Your task to perform on an android device: Show me productivity apps on the Play Store Image 0: 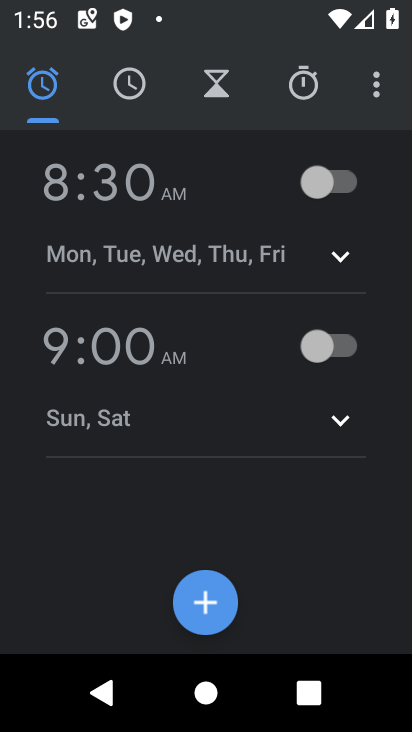
Step 0: press home button
Your task to perform on an android device: Show me productivity apps on the Play Store Image 1: 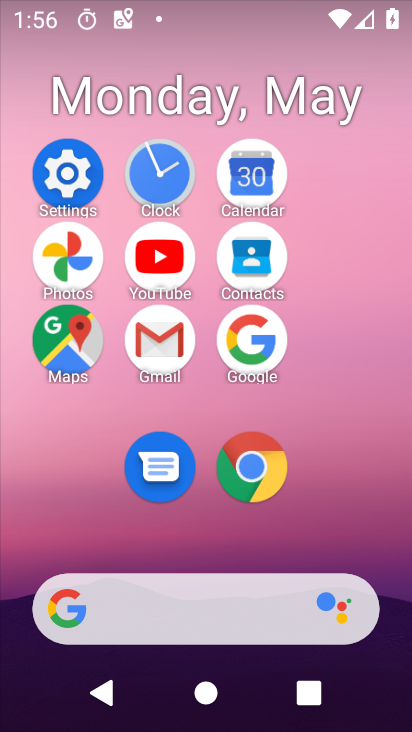
Step 1: drag from (311, 547) to (362, 160)
Your task to perform on an android device: Show me productivity apps on the Play Store Image 2: 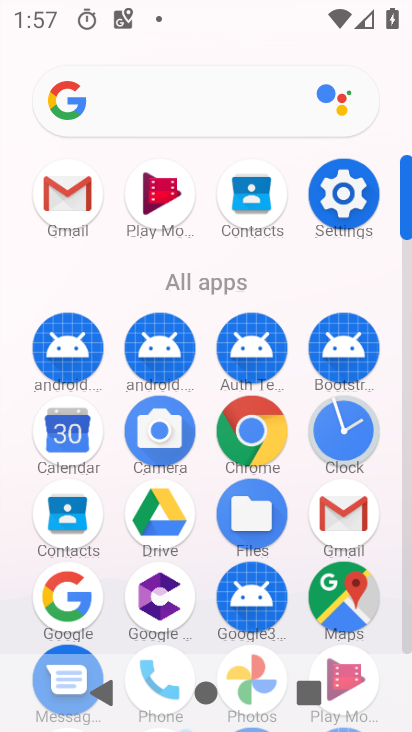
Step 2: drag from (154, 577) to (170, 216)
Your task to perform on an android device: Show me productivity apps on the Play Store Image 3: 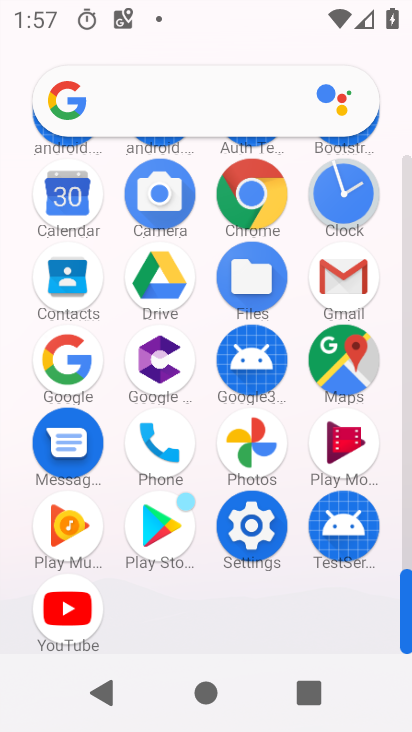
Step 3: click (160, 528)
Your task to perform on an android device: Show me productivity apps on the Play Store Image 4: 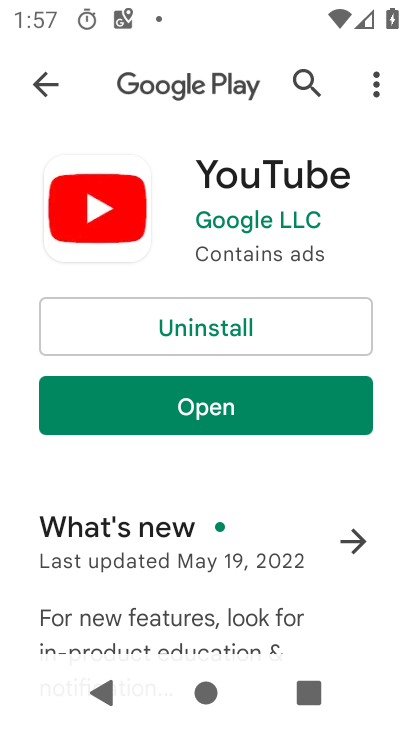
Step 4: click (33, 88)
Your task to perform on an android device: Show me productivity apps on the Play Store Image 5: 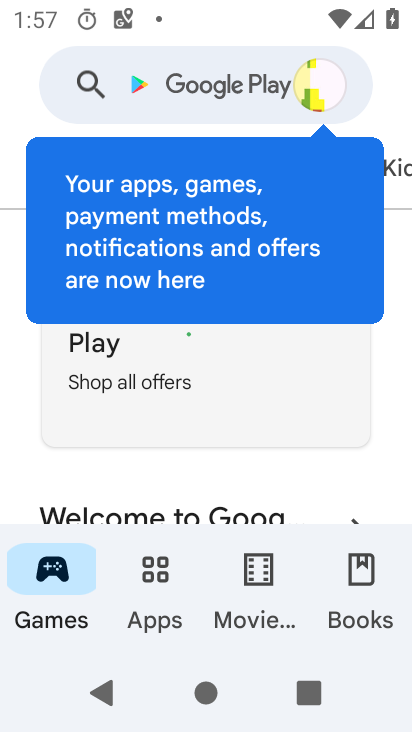
Step 5: click (177, 600)
Your task to perform on an android device: Show me productivity apps on the Play Store Image 6: 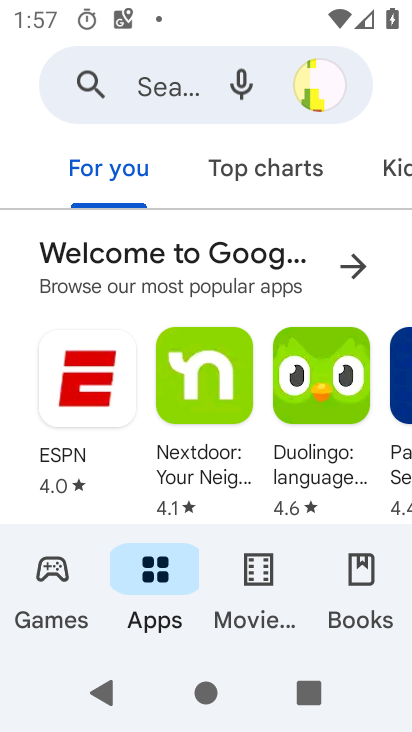
Step 6: drag from (384, 172) to (147, 166)
Your task to perform on an android device: Show me productivity apps on the Play Store Image 7: 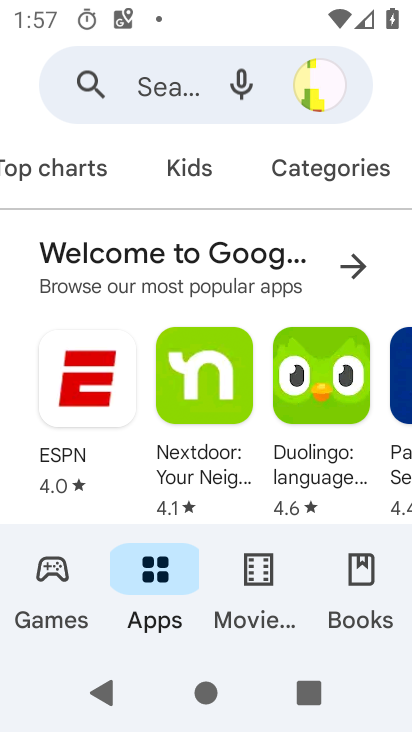
Step 7: click (311, 178)
Your task to perform on an android device: Show me productivity apps on the Play Store Image 8: 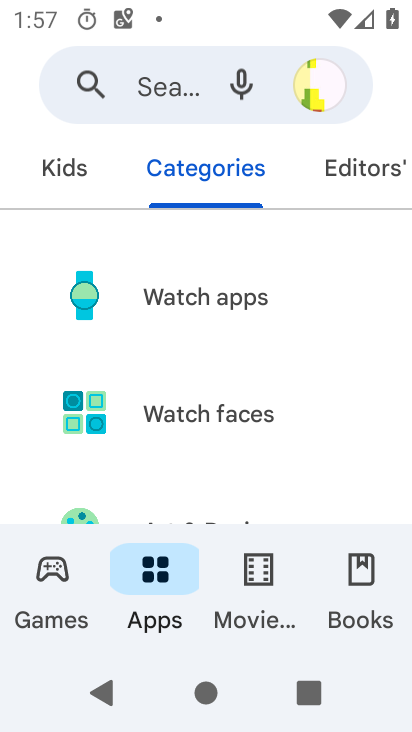
Step 8: drag from (235, 486) to (287, 128)
Your task to perform on an android device: Show me productivity apps on the Play Store Image 9: 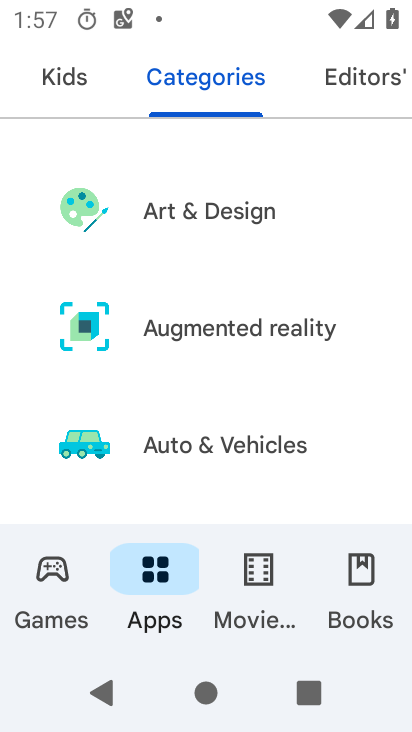
Step 9: drag from (249, 480) to (289, 101)
Your task to perform on an android device: Show me productivity apps on the Play Store Image 10: 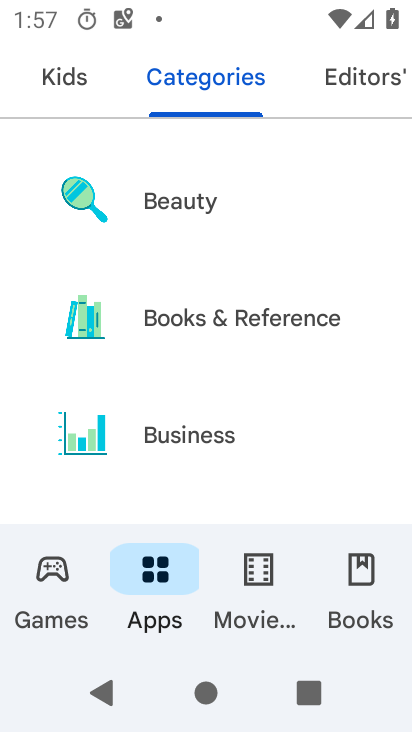
Step 10: drag from (270, 459) to (301, 142)
Your task to perform on an android device: Show me productivity apps on the Play Store Image 11: 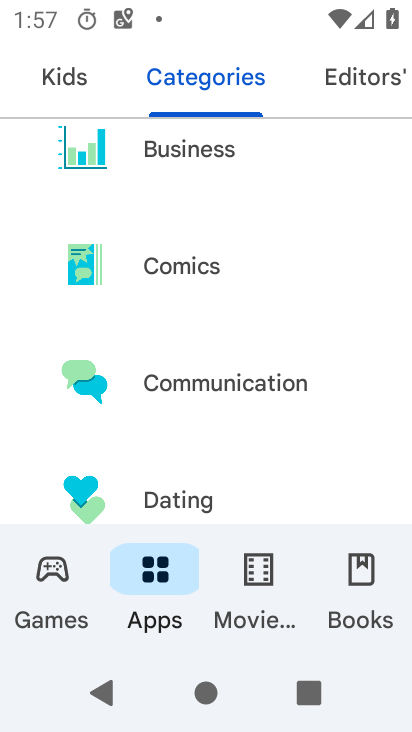
Step 11: drag from (262, 478) to (289, 109)
Your task to perform on an android device: Show me productivity apps on the Play Store Image 12: 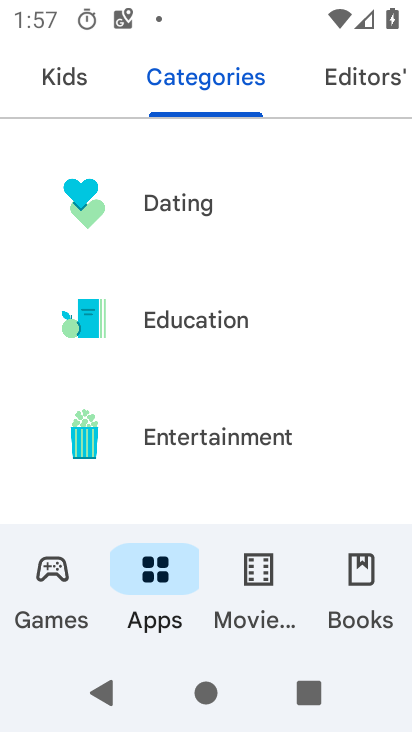
Step 12: drag from (273, 437) to (299, 148)
Your task to perform on an android device: Show me productivity apps on the Play Store Image 13: 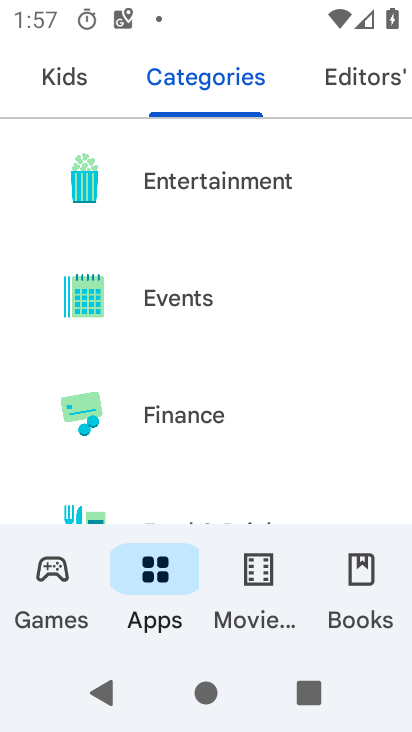
Step 13: drag from (265, 460) to (271, 137)
Your task to perform on an android device: Show me productivity apps on the Play Store Image 14: 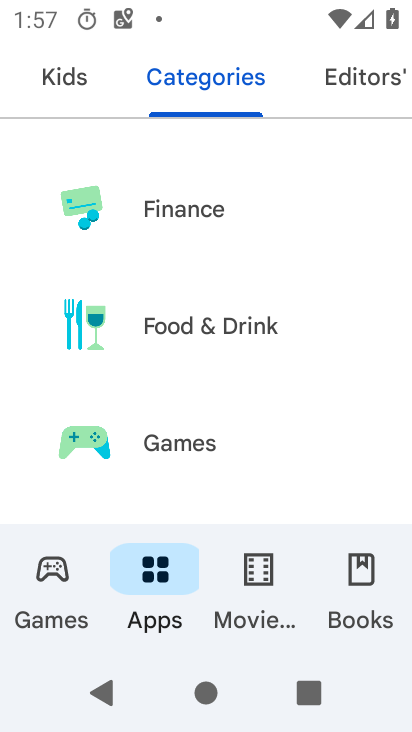
Step 14: drag from (254, 439) to (262, 158)
Your task to perform on an android device: Show me productivity apps on the Play Store Image 15: 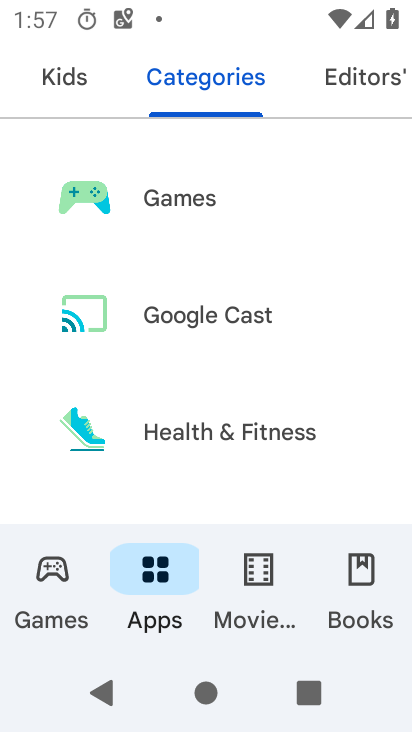
Step 15: drag from (246, 471) to (271, 161)
Your task to perform on an android device: Show me productivity apps on the Play Store Image 16: 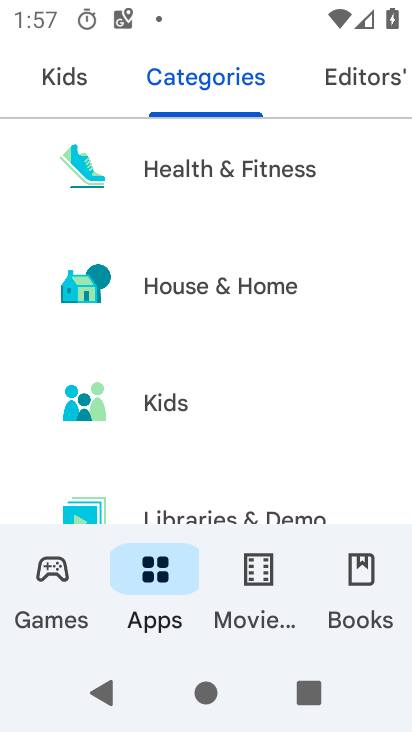
Step 16: drag from (251, 463) to (288, 161)
Your task to perform on an android device: Show me productivity apps on the Play Store Image 17: 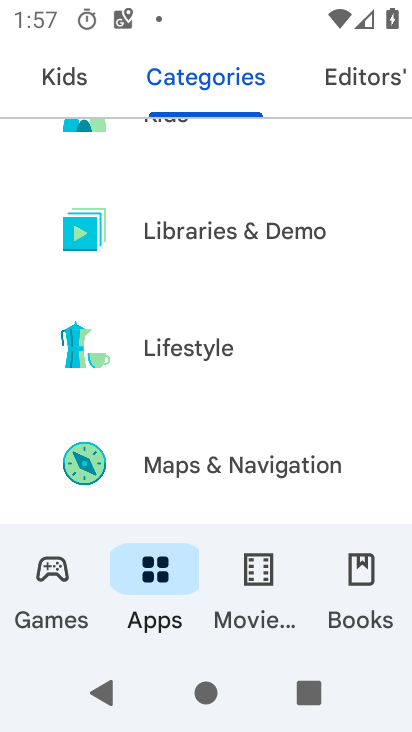
Step 17: drag from (267, 421) to (288, 149)
Your task to perform on an android device: Show me productivity apps on the Play Store Image 18: 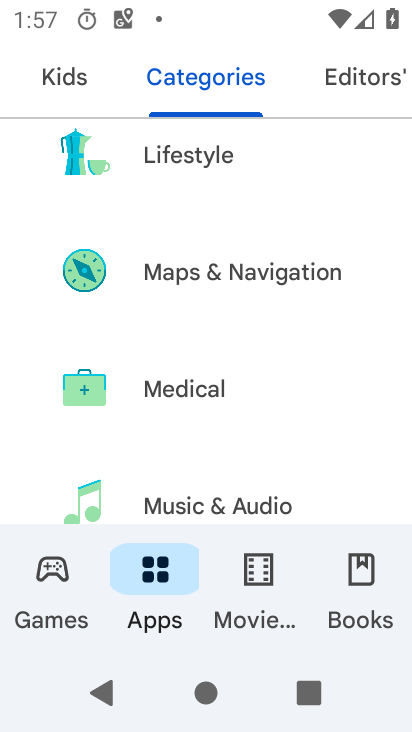
Step 18: drag from (253, 457) to (264, 130)
Your task to perform on an android device: Show me productivity apps on the Play Store Image 19: 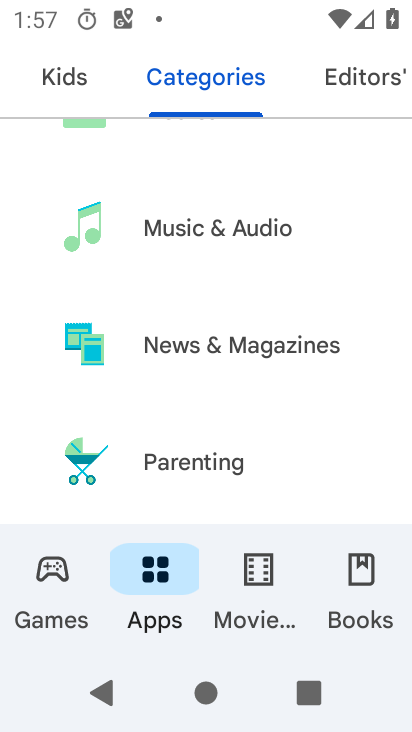
Step 19: drag from (241, 431) to (261, 151)
Your task to perform on an android device: Show me productivity apps on the Play Store Image 20: 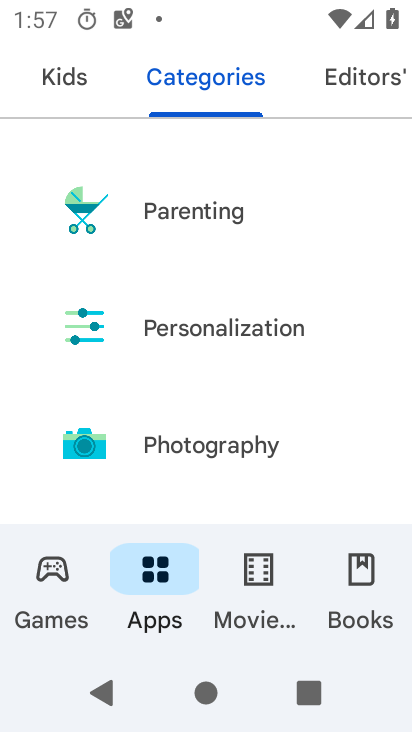
Step 20: drag from (252, 456) to (281, 172)
Your task to perform on an android device: Show me productivity apps on the Play Store Image 21: 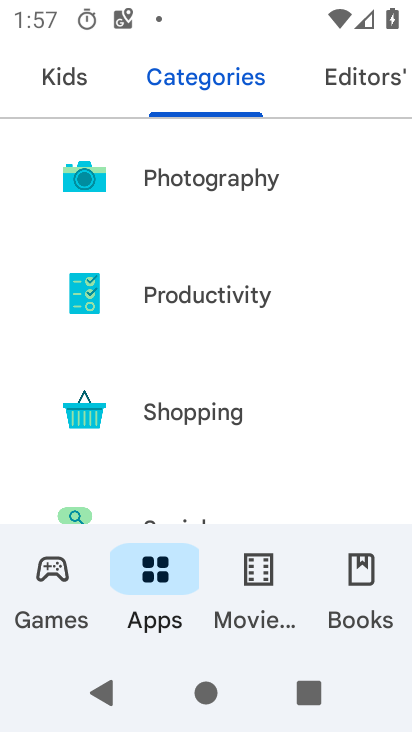
Step 21: click (243, 308)
Your task to perform on an android device: Show me productivity apps on the Play Store Image 22: 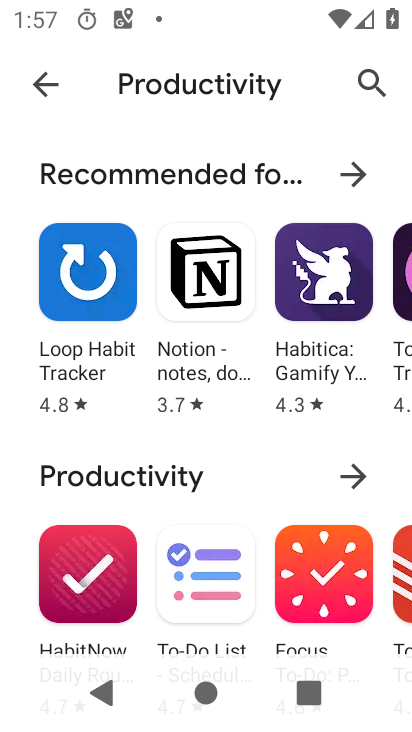
Step 22: task complete